Your task to perform on an android device: uninstall "AliExpress" Image 0: 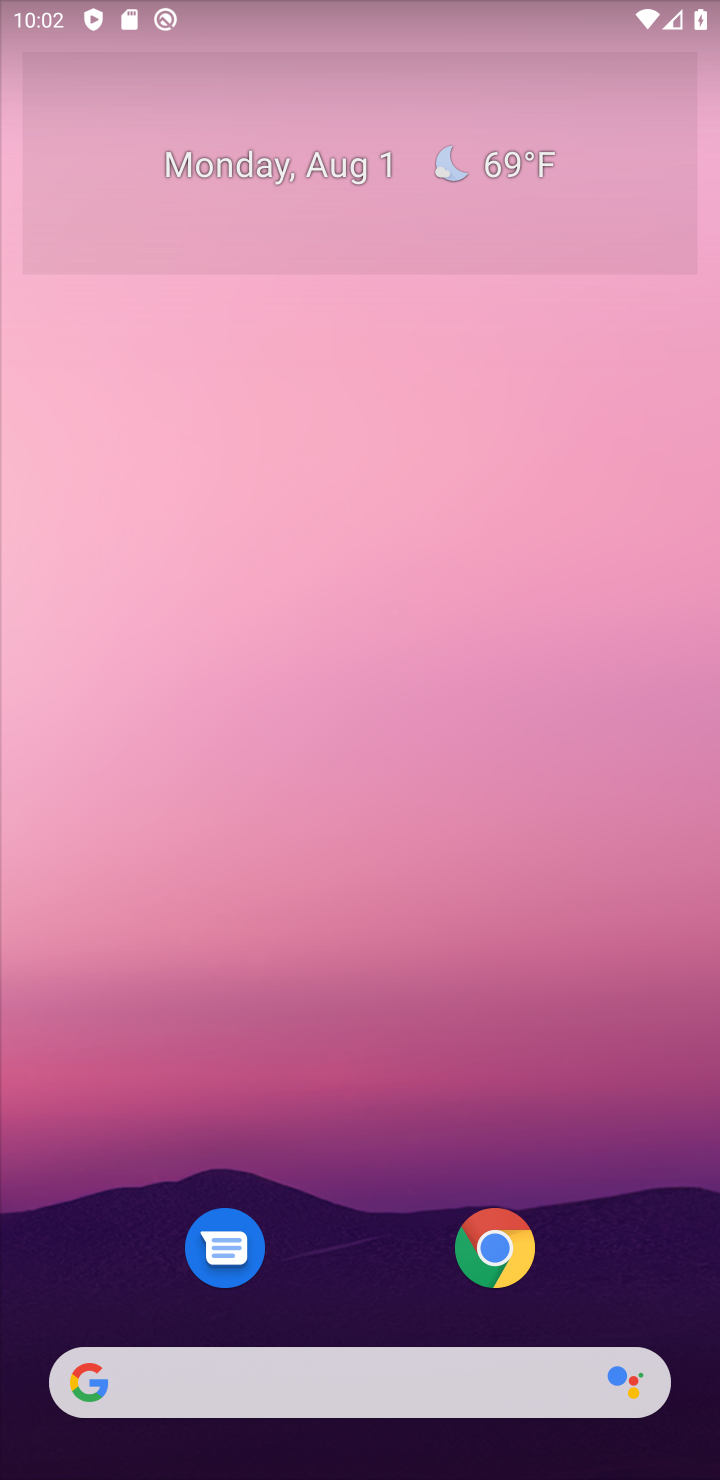
Step 0: drag from (471, 530) to (525, 85)
Your task to perform on an android device: uninstall "AliExpress" Image 1: 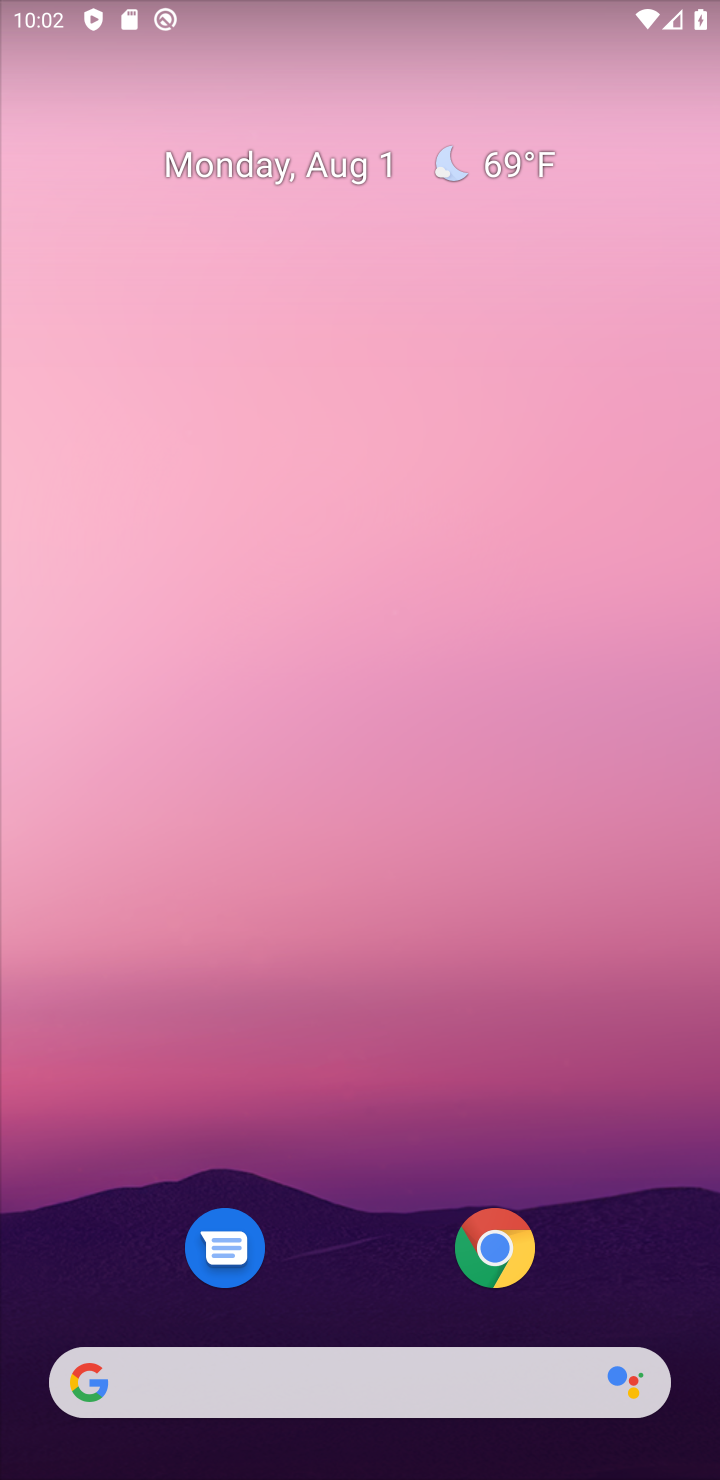
Step 1: drag from (363, 771) to (466, 118)
Your task to perform on an android device: uninstall "AliExpress" Image 2: 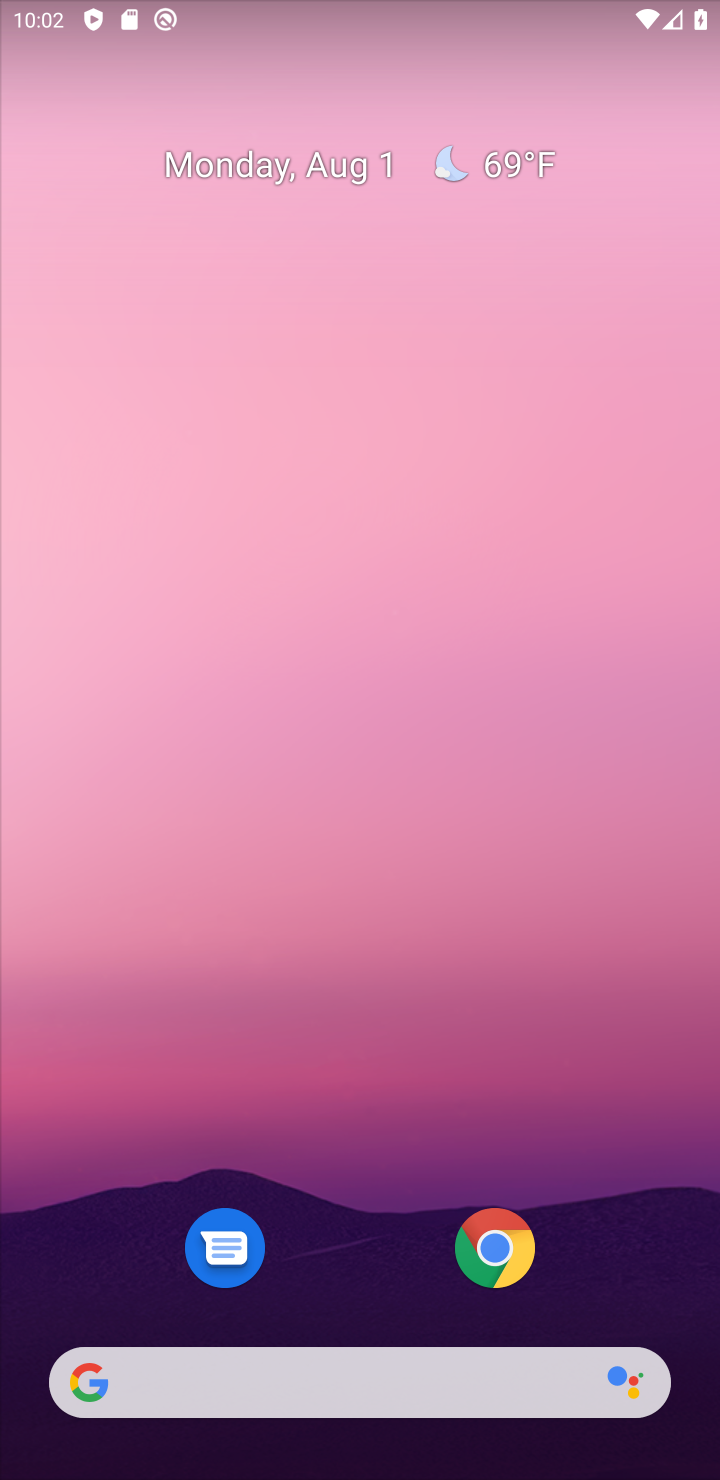
Step 2: drag from (374, 973) to (459, 87)
Your task to perform on an android device: uninstall "AliExpress" Image 3: 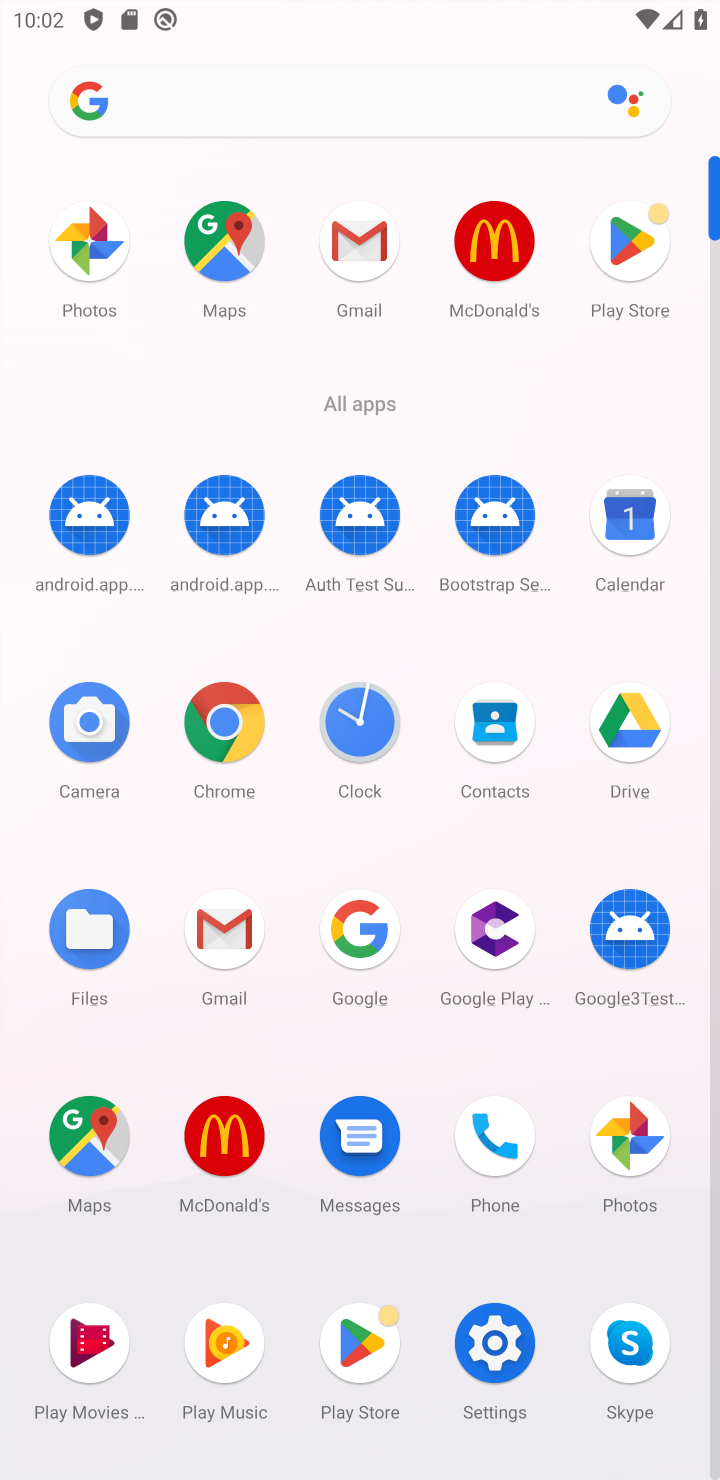
Step 3: click (625, 224)
Your task to perform on an android device: uninstall "AliExpress" Image 4: 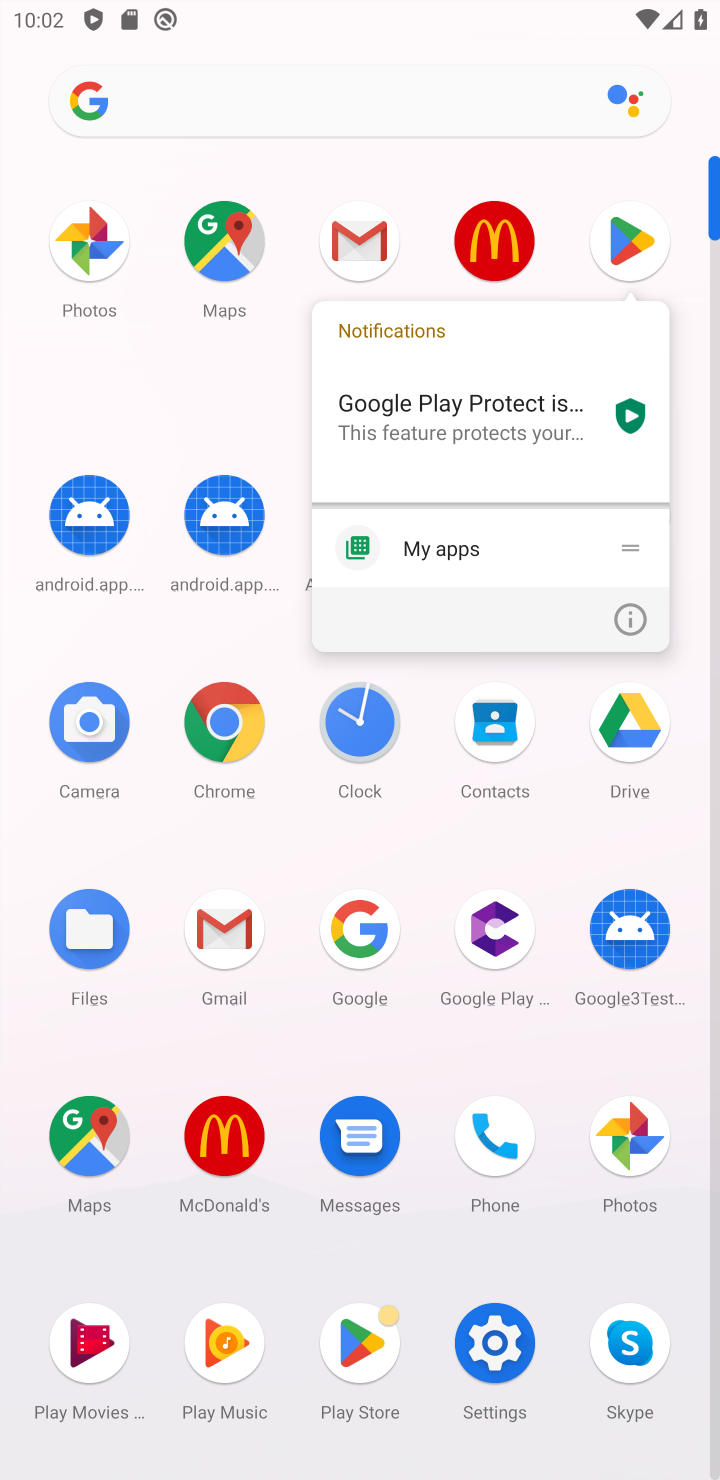
Step 4: click (610, 241)
Your task to perform on an android device: uninstall "AliExpress" Image 5: 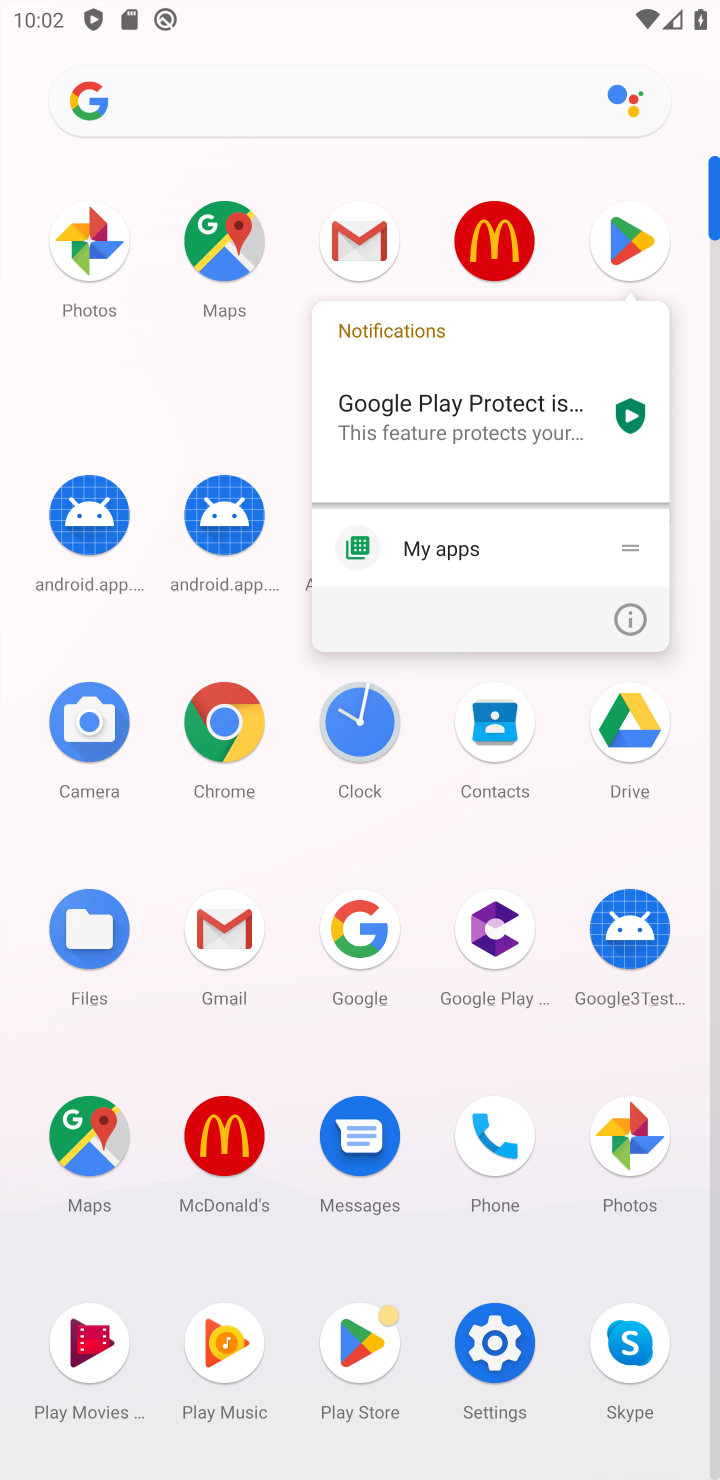
Step 5: click (377, 1346)
Your task to perform on an android device: uninstall "AliExpress" Image 6: 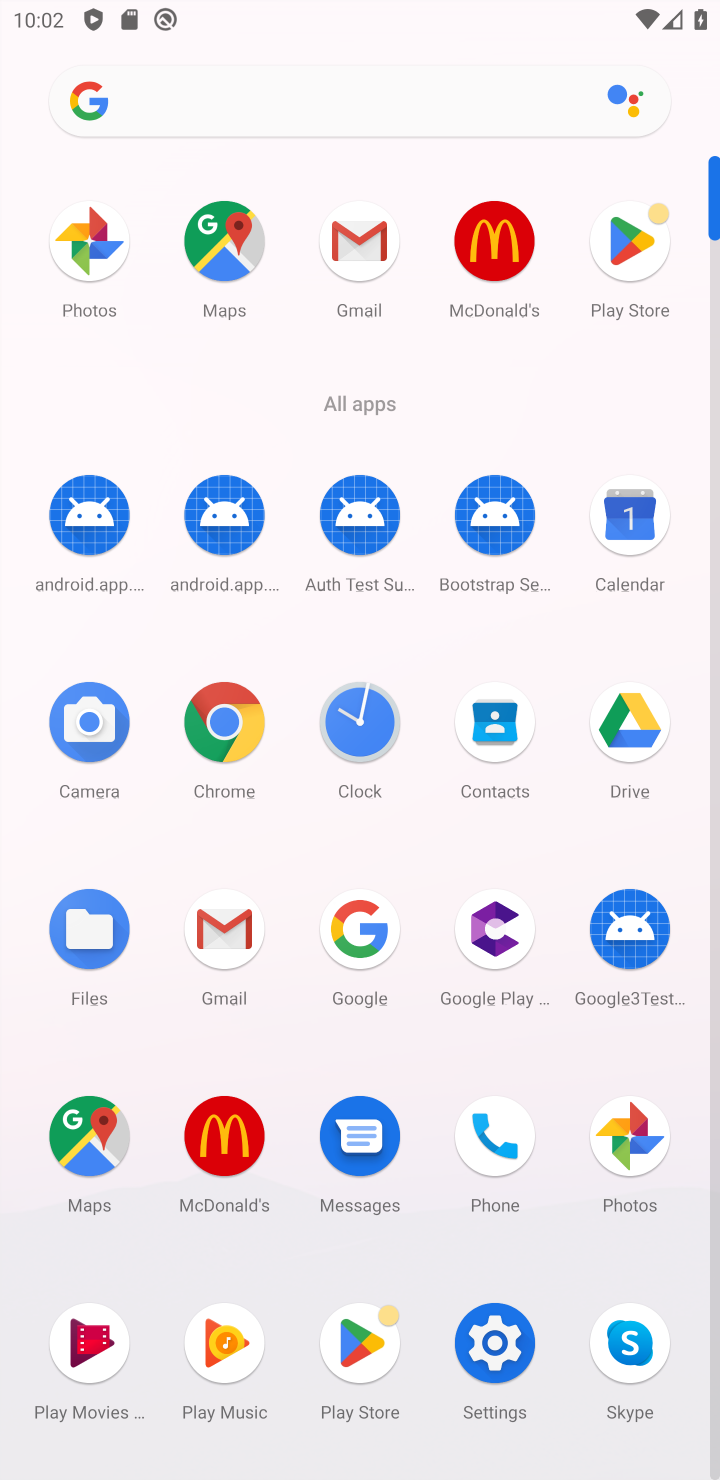
Step 6: click (352, 1339)
Your task to perform on an android device: uninstall "AliExpress" Image 7: 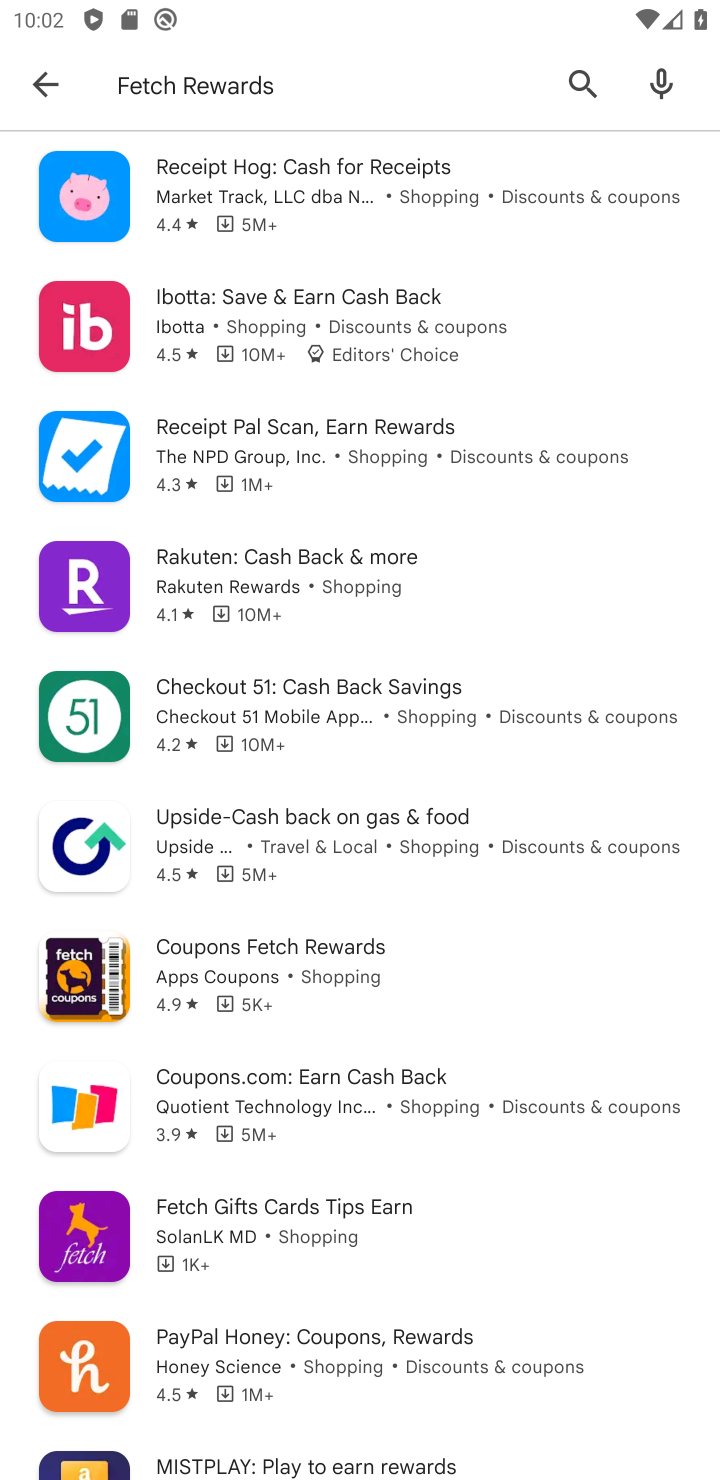
Step 7: click (344, 76)
Your task to perform on an android device: uninstall "AliExpress" Image 8: 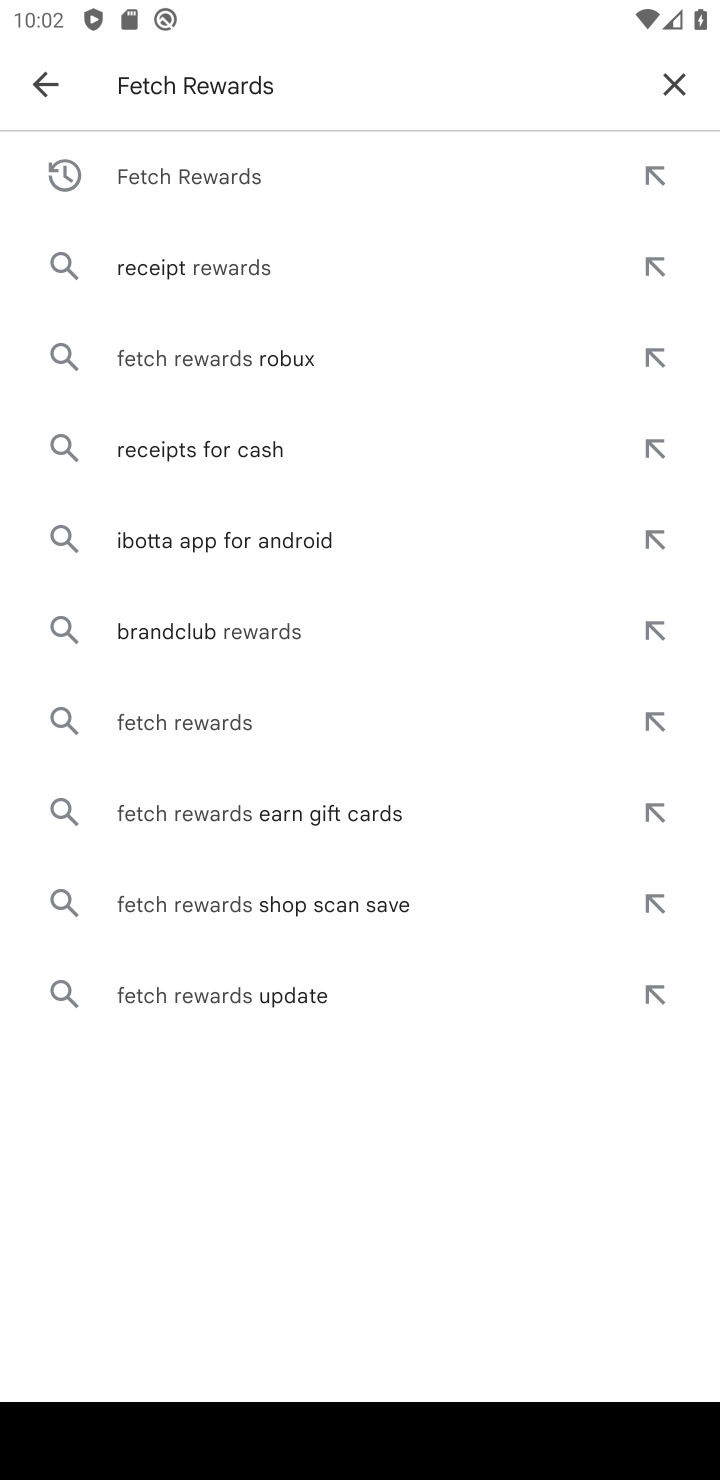
Step 8: click (685, 73)
Your task to perform on an android device: uninstall "AliExpress" Image 9: 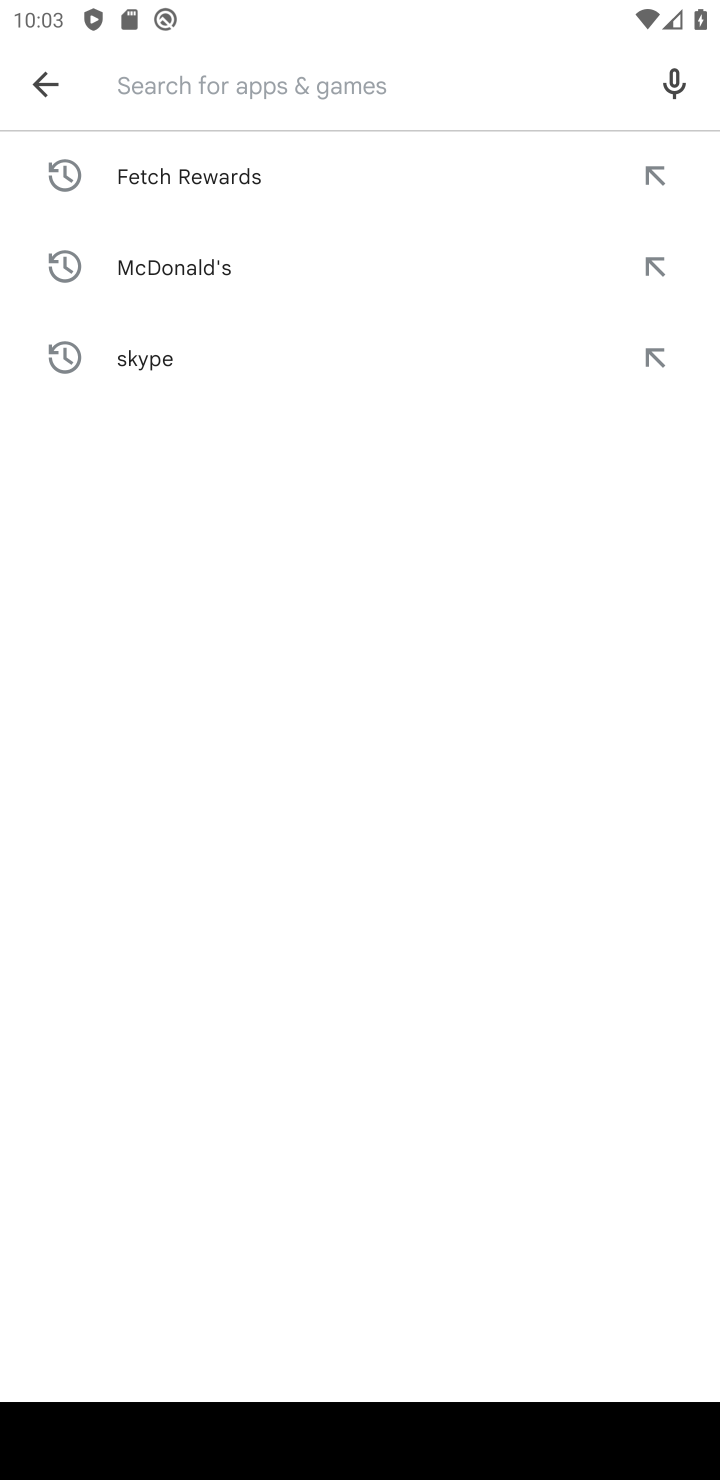
Step 9: type "AliExpress"
Your task to perform on an android device: uninstall "AliExpress" Image 10: 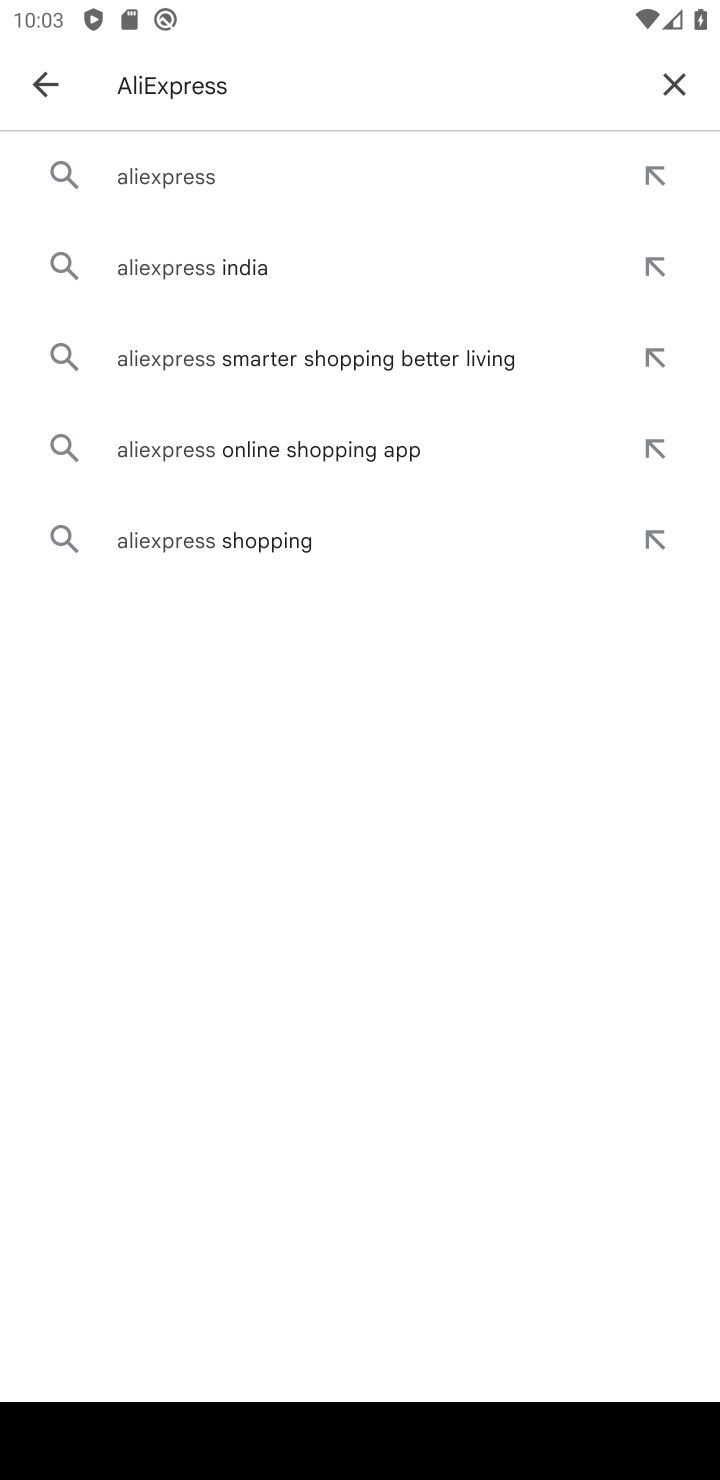
Step 10: press enter
Your task to perform on an android device: uninstall "AliExpress" Image 11: 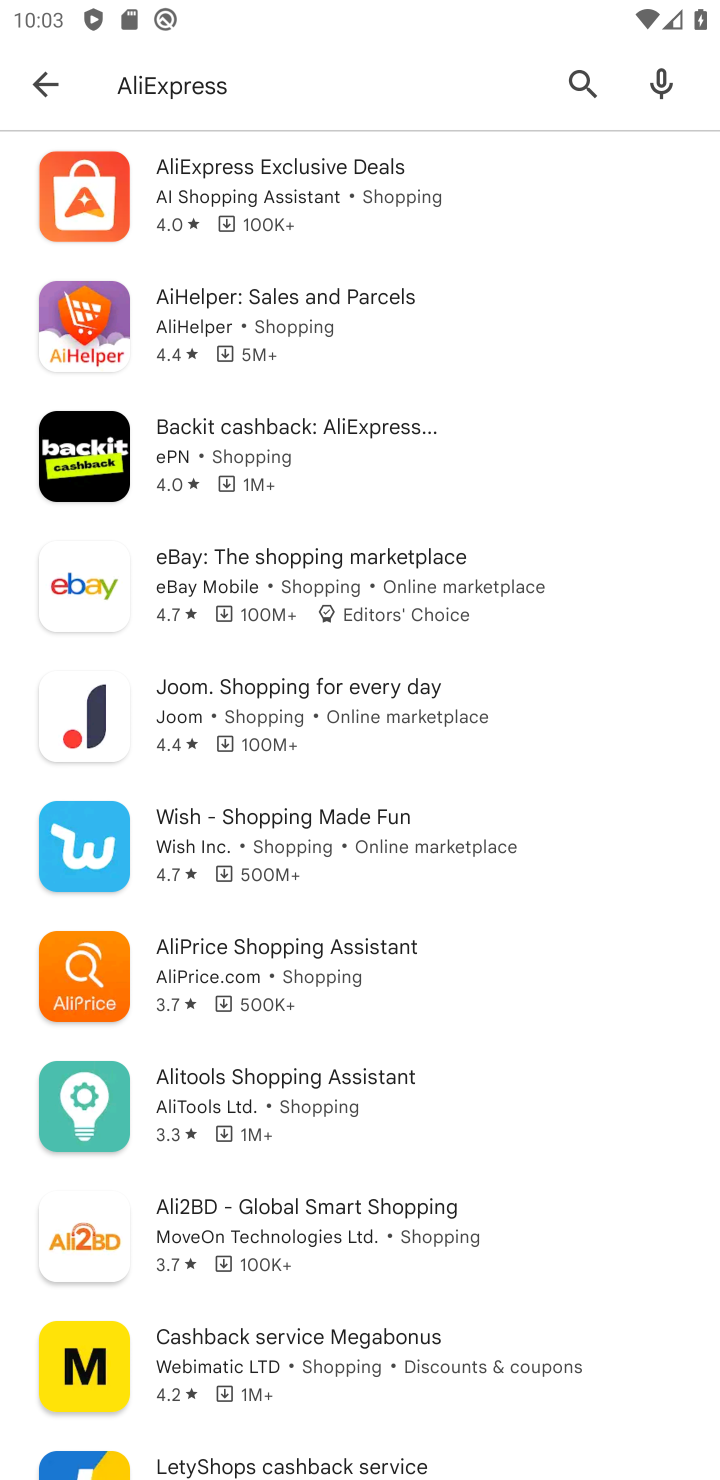
Step 11: task complete